Your task to perform on an android device: What's the weather going to be this weekend? Image 0: 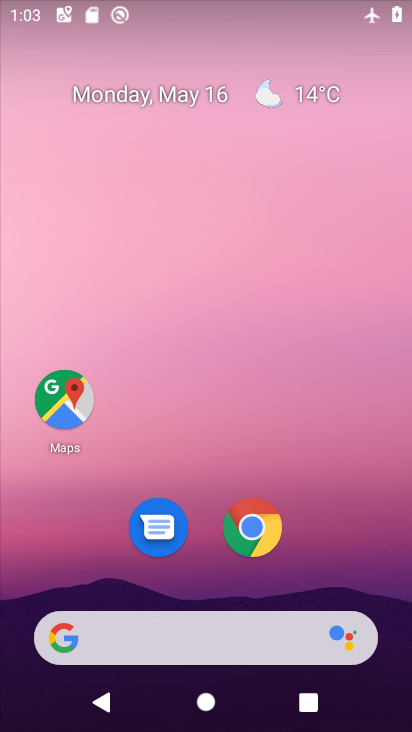
Step 0: drag from (200, 509) to (200, 0)
Your task to perform on an android device: What's the weather going to be this weekend? Image 1: 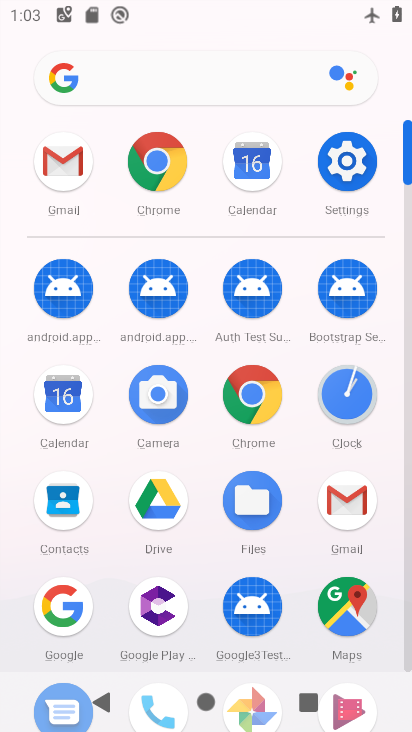
Step 1: press home button
Your task to perform on an android device: What's the weather going to be this weekend? Image 2: 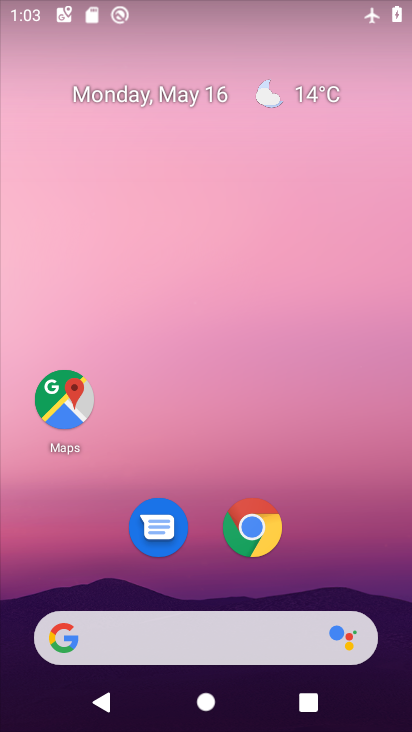
Step 2: click (290, 97)
Your task to perform on an android device: What's the weather going to be this weekend? Image 3: 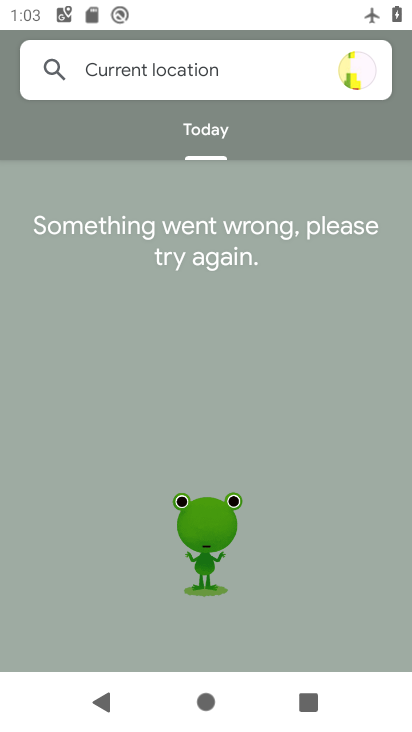
Step 3: task complete